Your task to perform on an android device: toggle airplane mode Image 0: 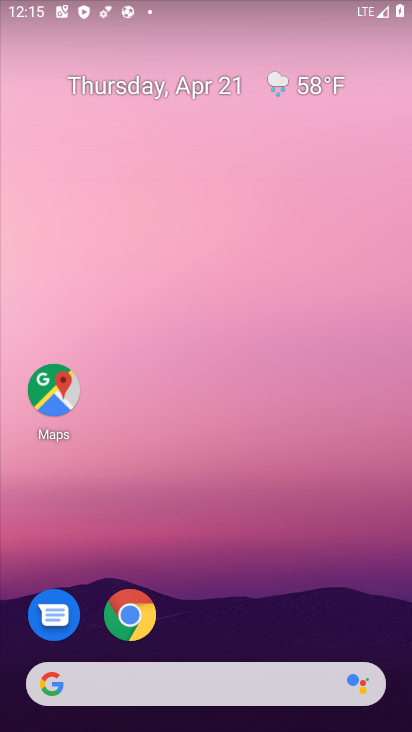
Step 0: drag from (363, 619) to (347, 234)
Your task to perform on an android device: toggle airplane mode Image 1: 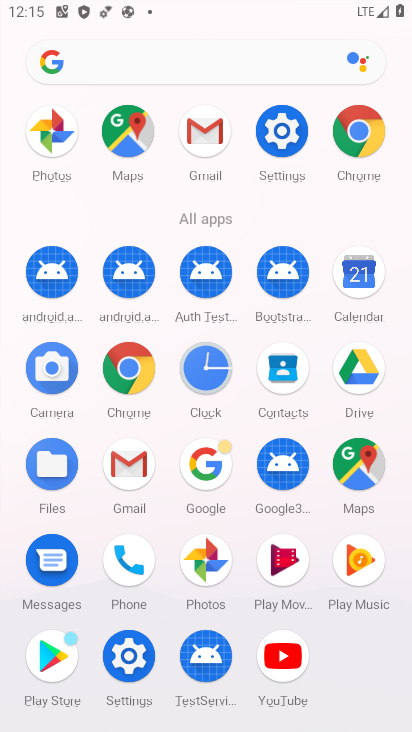
Step 1: click (281, 138)
Your task to perform on an android device: toggle airplane mode Image 2: 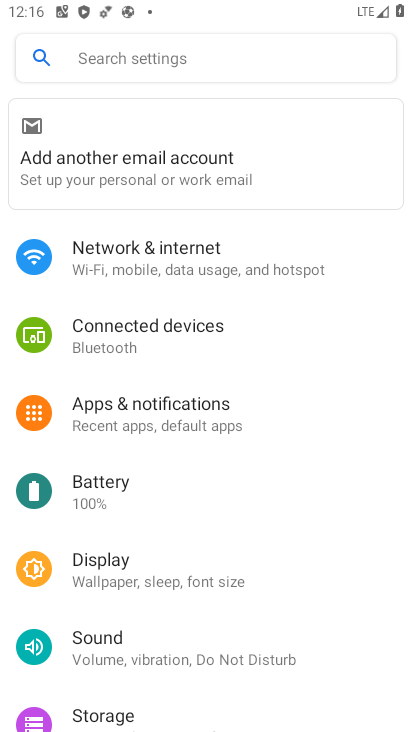
Step 2: click (197, 266)
Your task to perform on an android device: toggle airplane mode Image 3: 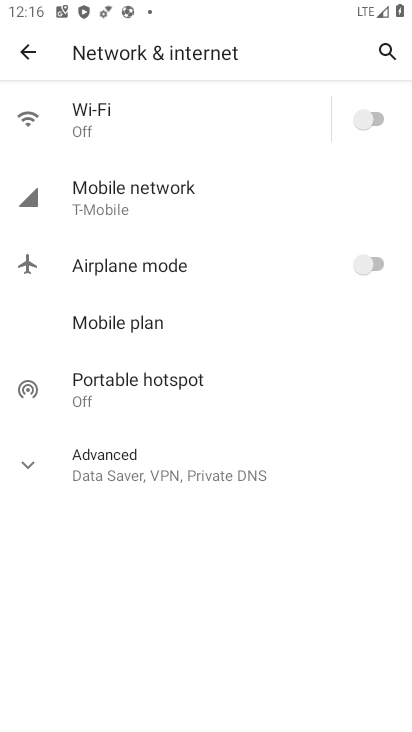
Step 3: click (376, 265)
Your task to perform on an android device: toggle airplane mode Image 4: 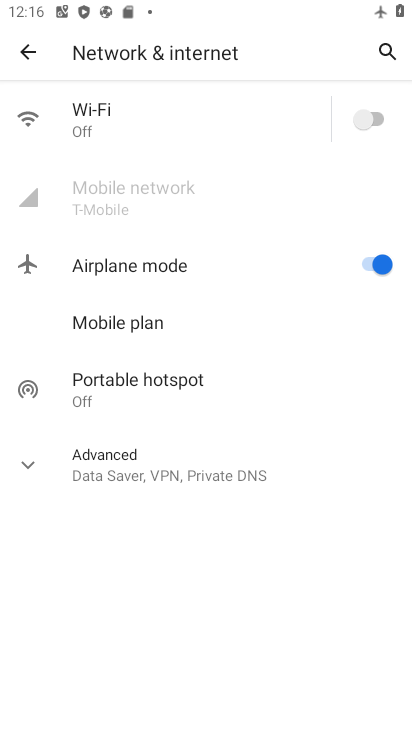
Step 4: task complete